Your task to perform on an android device: Add "lenovo thinkpad" to the cart on ebay.com Image 0: 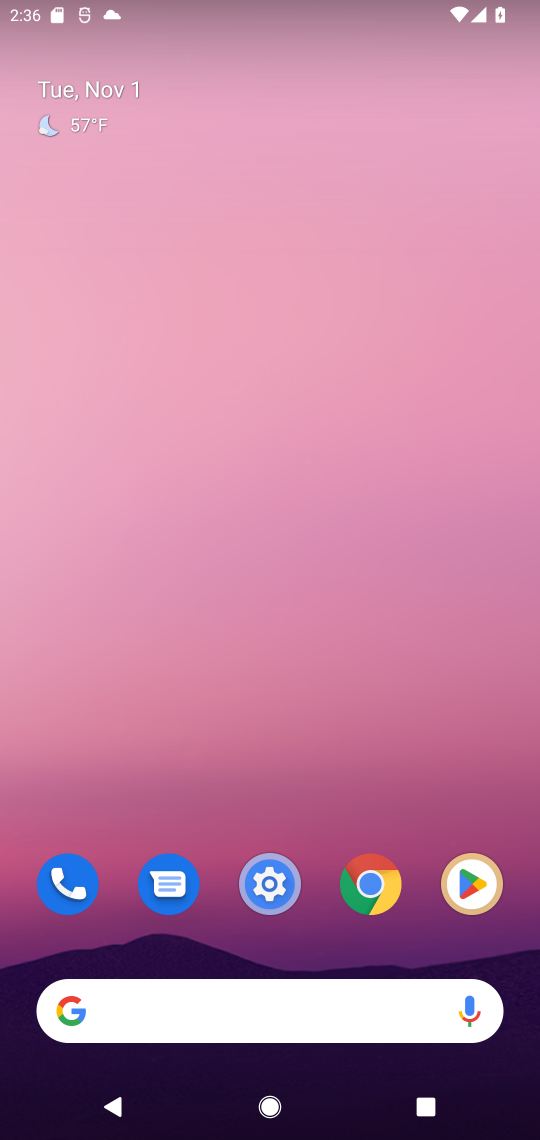
Step 0: press home button
Your task to perform on an android device: Add "lenovo thinkpad" to the cart on ebay.com Image 1: 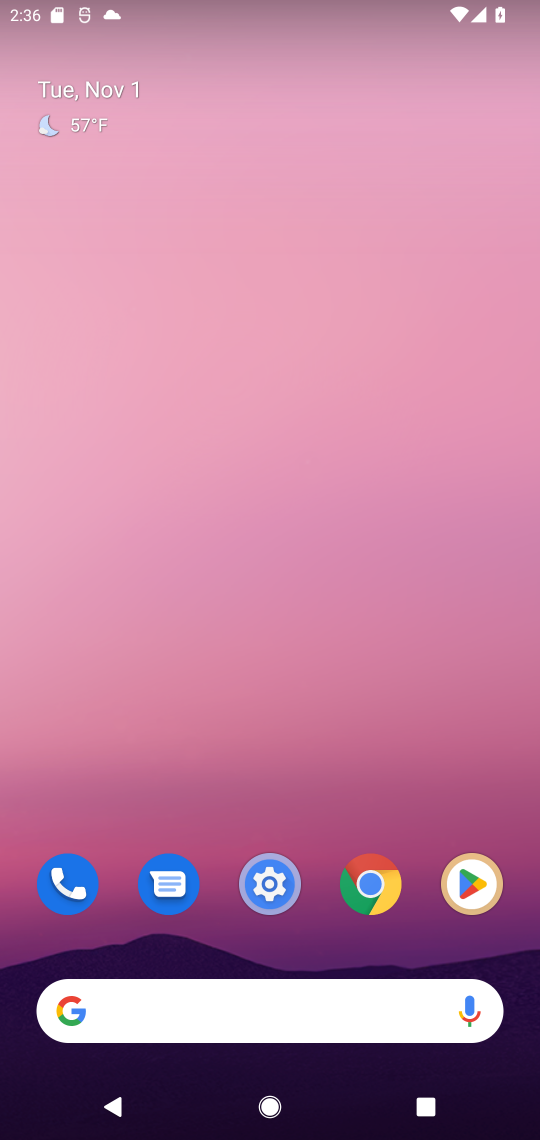
Step 1: click (116, 1007)
Your task to perform on an android device: Add "lenovo thinkpad" to the cart on ebay.com Image 2: 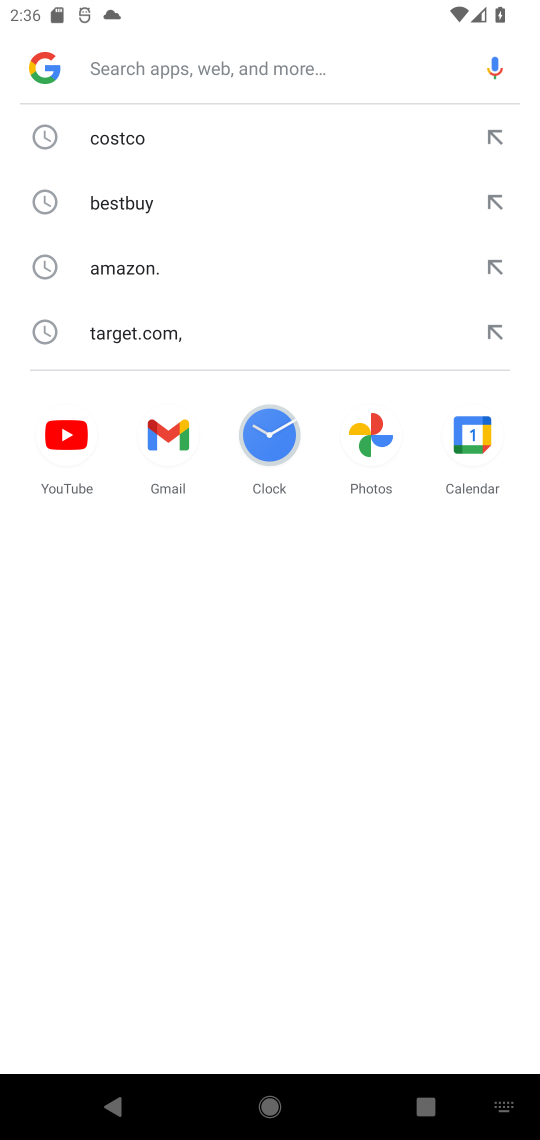
Step 2: type "ebay.com"
Your task to perform on an android device: Add "lenovo thinkpad" to the cart on ebay.com Image 3: 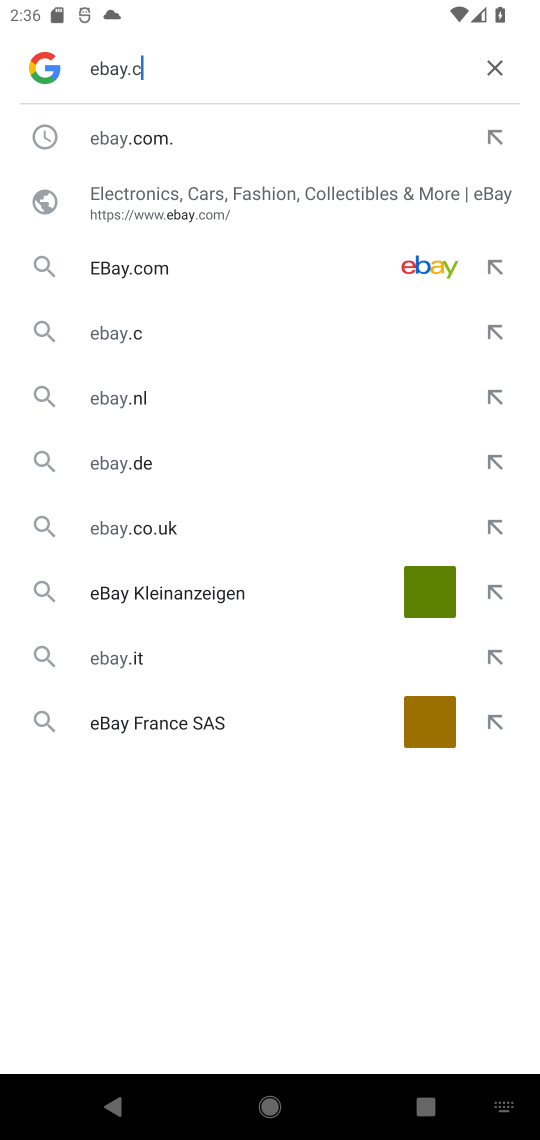
Step 3: press enter
Your task to perform on an android device: Add "lenovo thinkpad" to the cart on ebay.com Image 4: 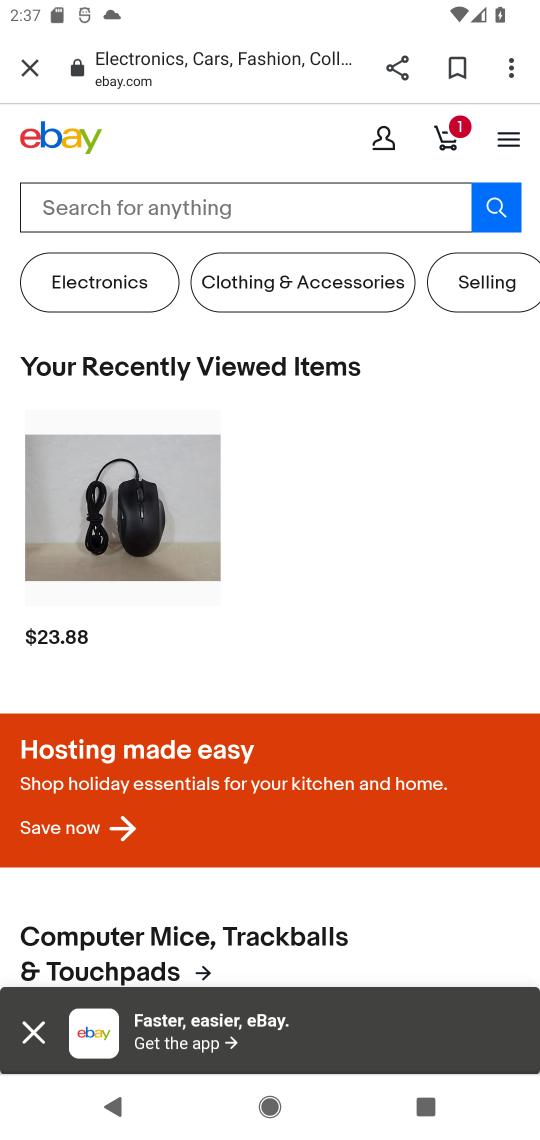
Step 4: click (48, 205)
Your task to perform on an android device: Add "lenovo thinkpad" to the cart on ebay.com Image 5: 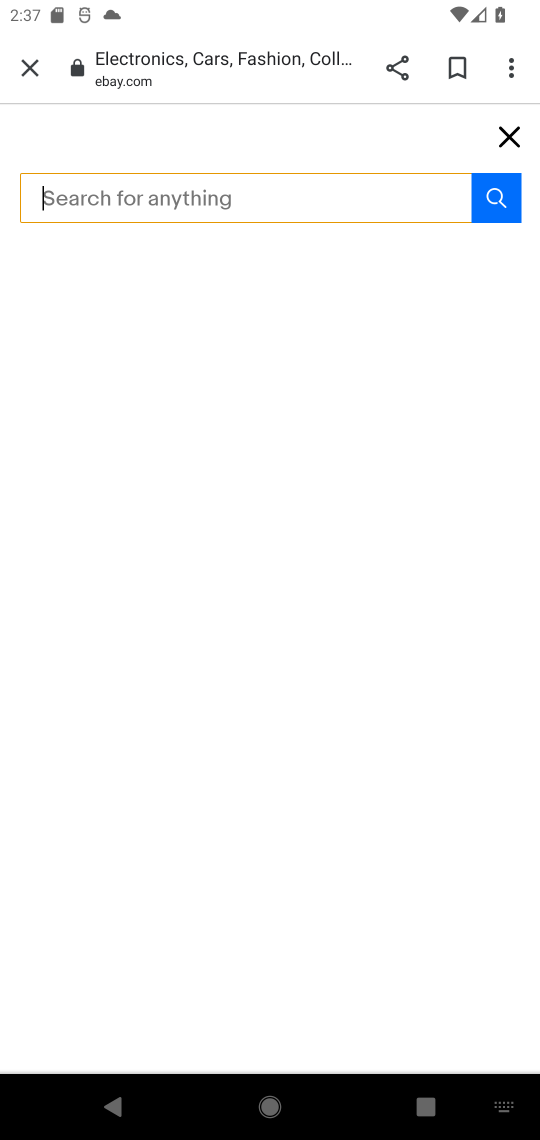
Step 5: type "lenovo thinkpad"
Your task to perform on an android device: Add "lenovo thinkpad" to the cart on ebay.com Image 6: 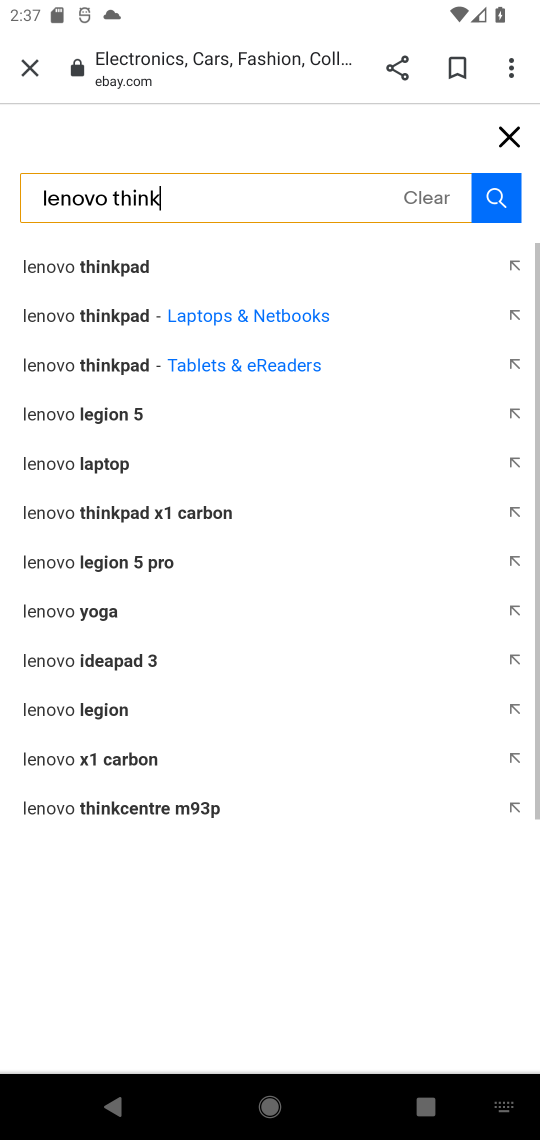
Step 6: press enter
Your task to perform on an android device: Add "lenovo thinkpad" to the cart on ebay.com Image 7: 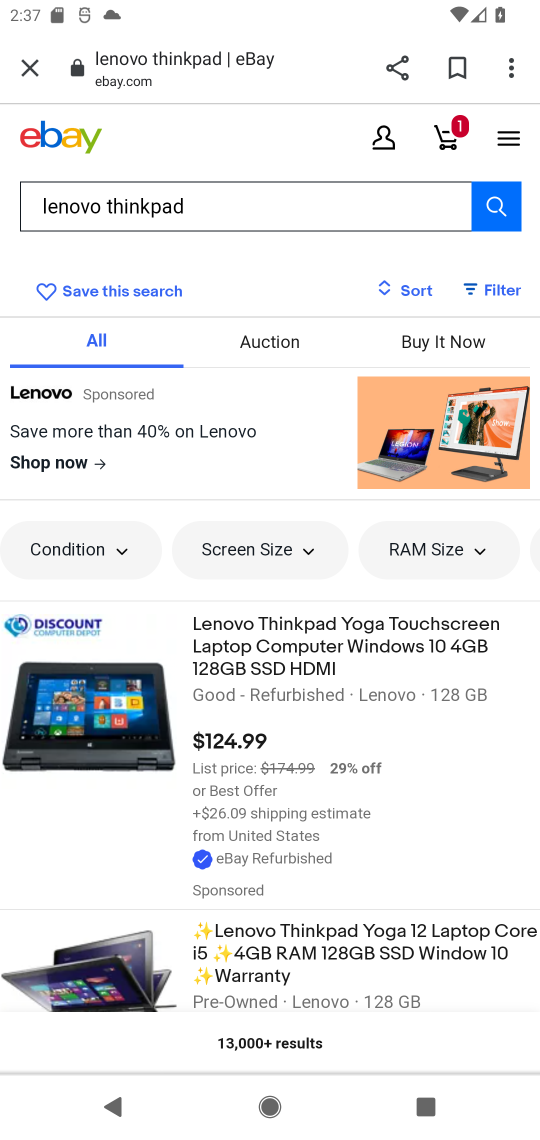
Step 7: click (277, 651)
Your task to perform on an android device: Add "lenovo thinkpad" to the cart on ebay.com Image 8: 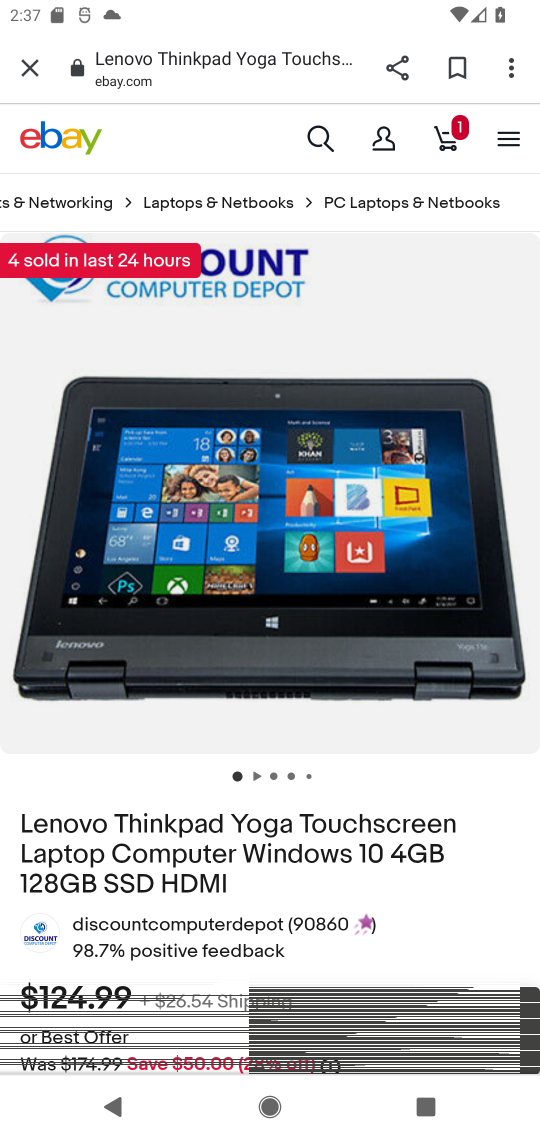
Step 8: drag from (275, 898) to (336, 537)
Your task to perform on an android device: Add "lenovo thinkpad" to the cart on ebay.com Image 9: 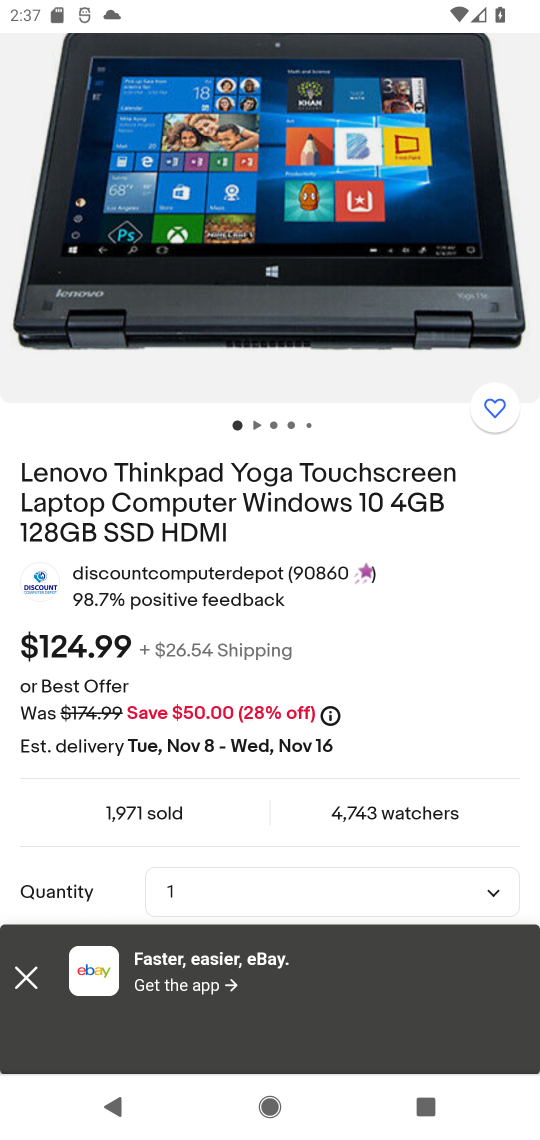
Step 9: drag from (299, 801) to (303, 378)
Your task to perform on an android device: Add "lenovo thinkpad" to the cart on ebay.com Image 10: 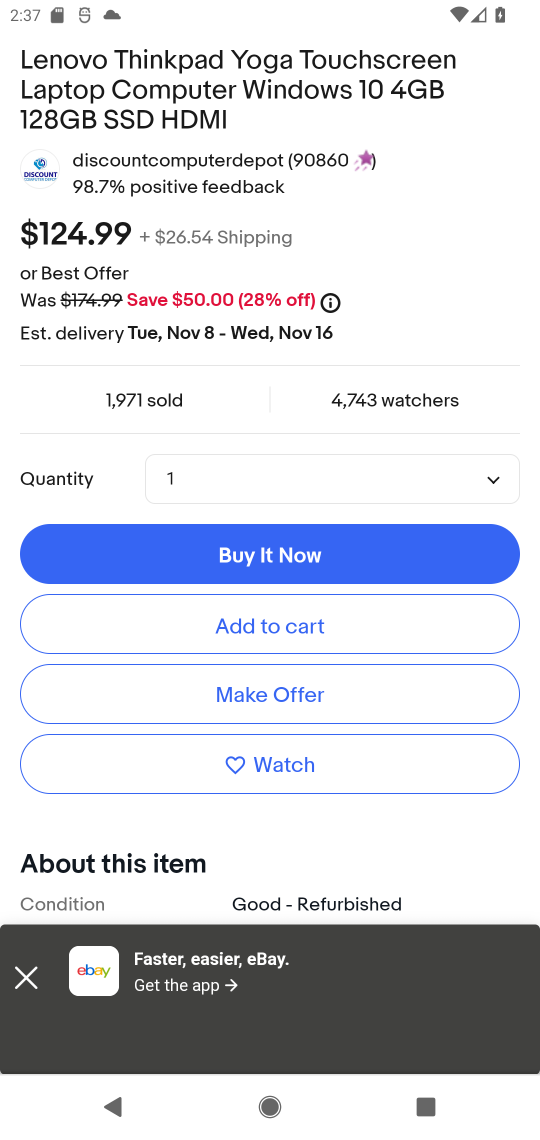
Step 10: click (237, 629)
Your task to perform on an android device: Add "lenovo thinkpad" to the cart on ebay.com Image 11: 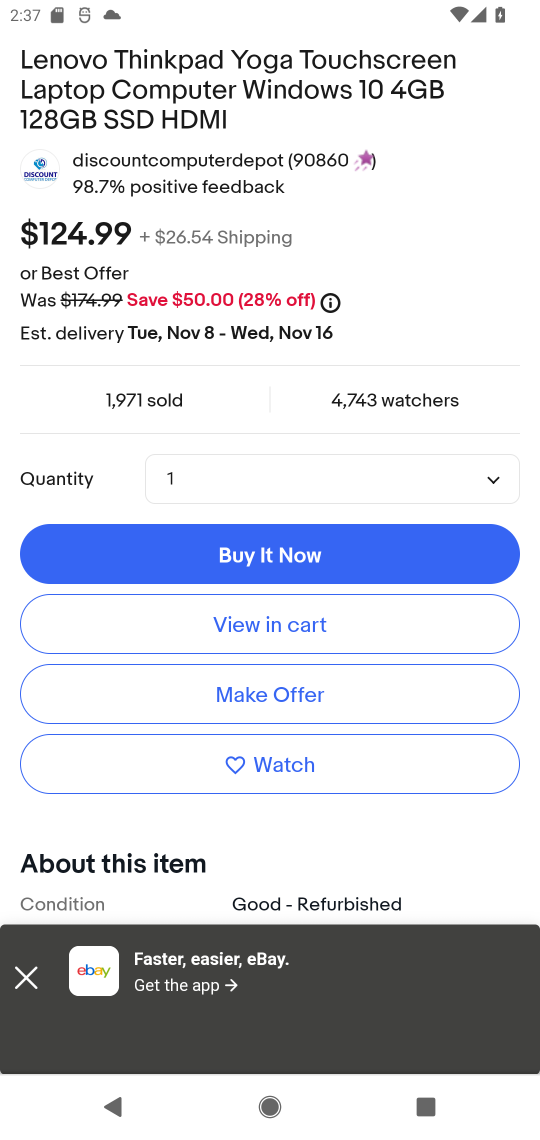
Step 11: task complete